Your task to perform on an android device: Open ESPN.com Image 0: 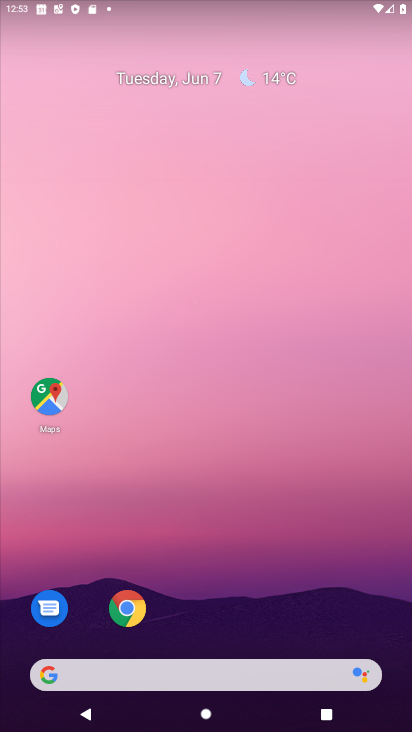
Step 0: click (215, 673)
Your task to perform on an android device: Open ESPN.com Image 1: 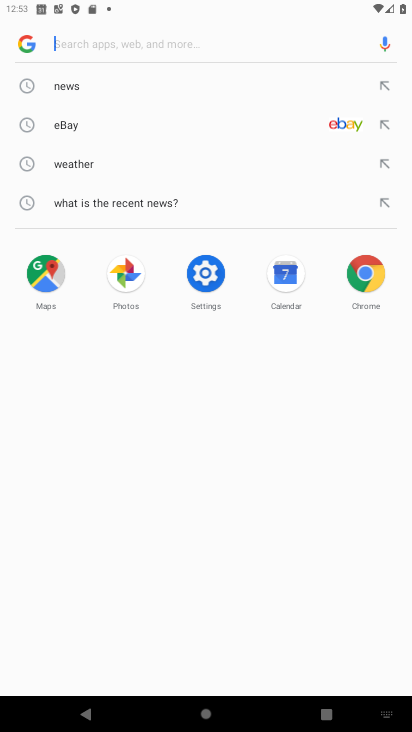
Step 1: type "ESPN.com"
Your task to perform on an android device: Open ESPN.com Image 2: 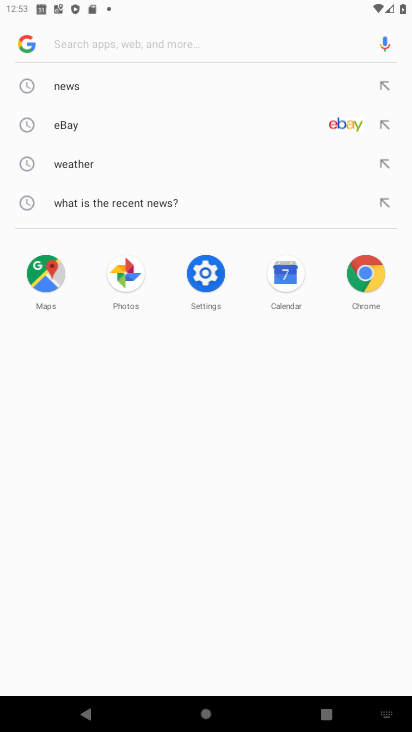
Step 2: click (158, 44)
Your task to perform on an android device: Open ESPN.com Image 3: 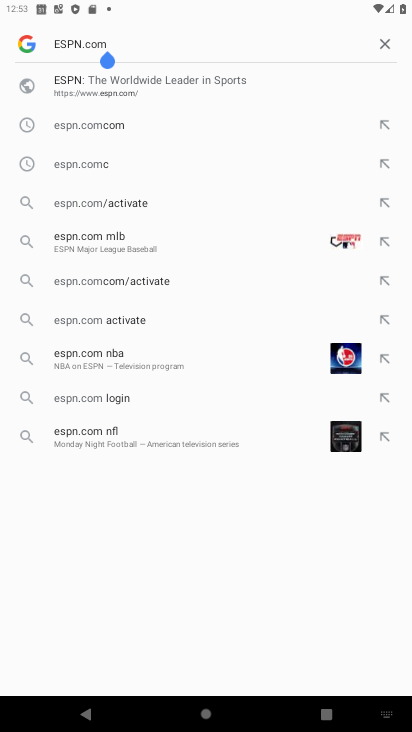
Step 3: click (181, 82)
Your task to perform on an android device: Open ESPN.com Image 4: 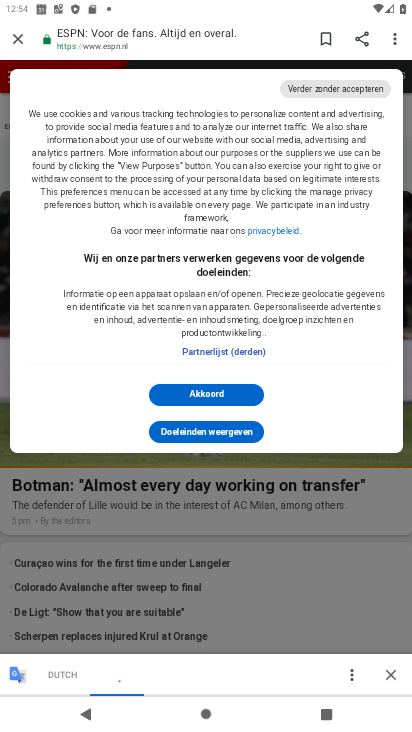
Step 4: click (211, 416)
Your task to perform on an android device: Open ESPN.com Image 5: 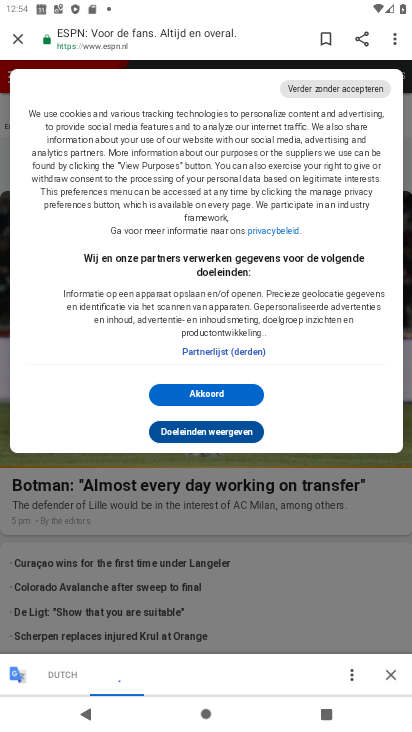
Step 5: click (216, 394)
Your task to perform on an android device: Open ESPN.com Image 6: 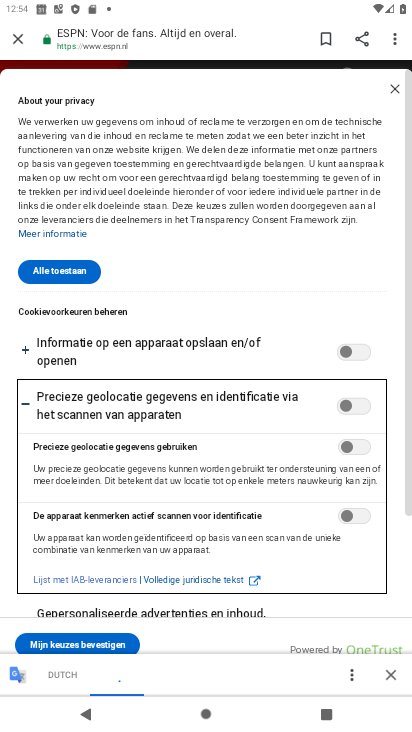
Step 6: click (390, 87)
Your task to perform on an android device: Open ESPN.com Image 7: 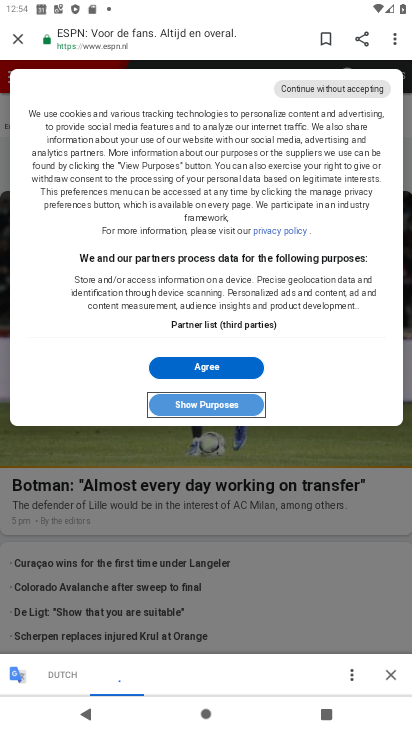
Step 7: click (226, 363)
Your task to perform on an android device: Open ESPN.com Image 8: 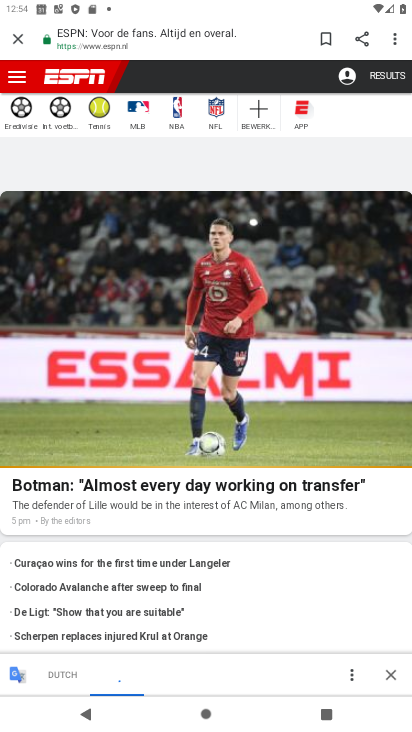
Step 8: task complete